Your task to perform on an android device: Search for sushi restaurants on Maps Image 0: 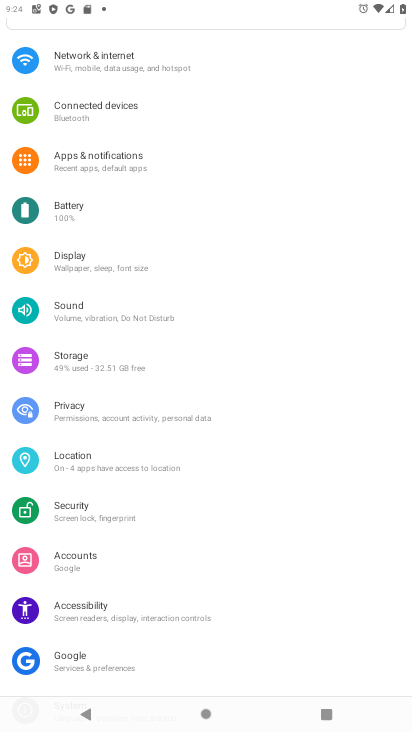
Step 0: press home button
Your task to perform on an android device: Search for sushi restaurants on Maps Image 1: 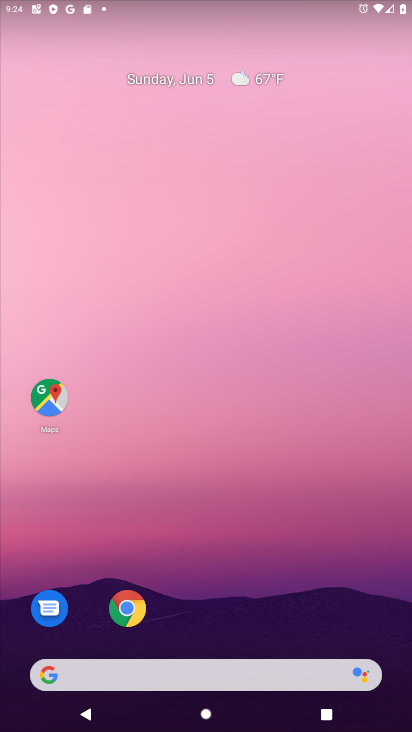
Step 1: click (44, 397)
Your task to perform on an android device: Search for sushi restaurants on Maps Image 2: 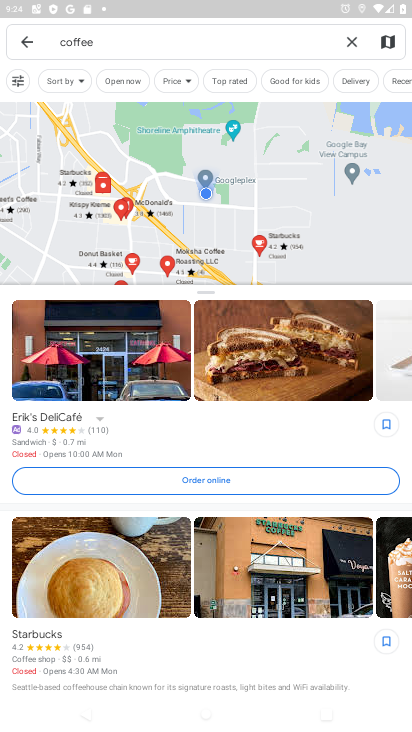
Step 2: click (353, 38)
Your task to perform on an android device: Search for sushi restaurants on Maps Image 3: 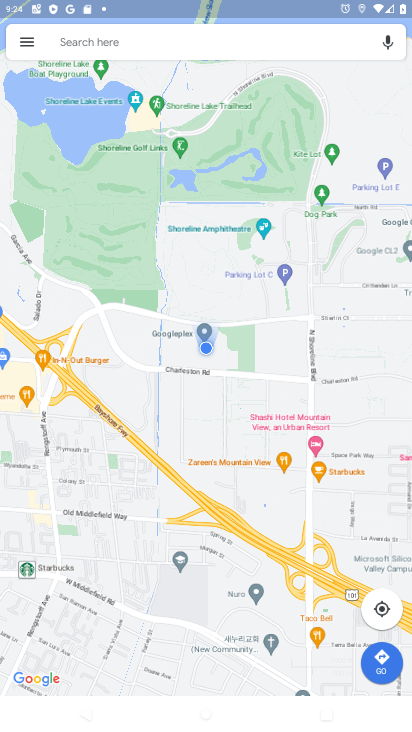
Step 3: click (96, 42)
Your task to perform on an android device: Search for sushi restaurants on Maps Image 4: 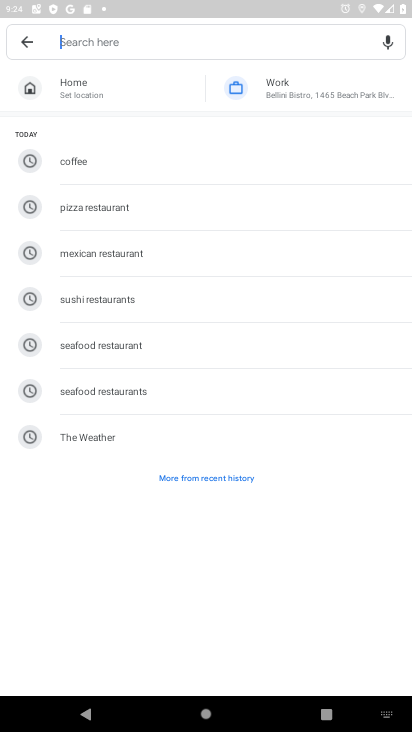
Step 4: click (78, 301)
Your task to perform on an android device: Search for sushi restaurants on Maps Image 5: 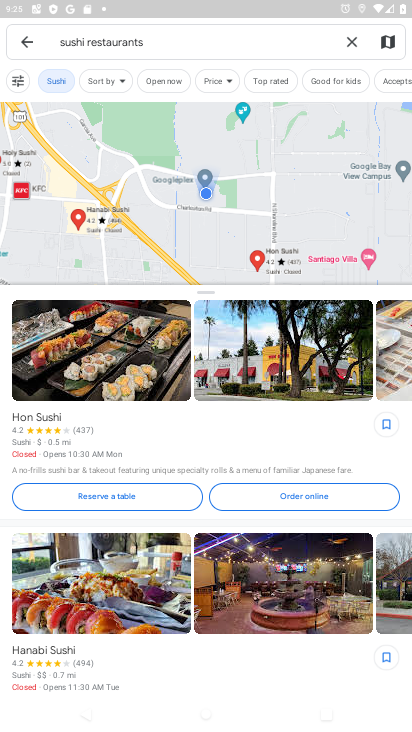
Step 5: task complete